Your task to perform on an android device: Go to network settings Image 0: 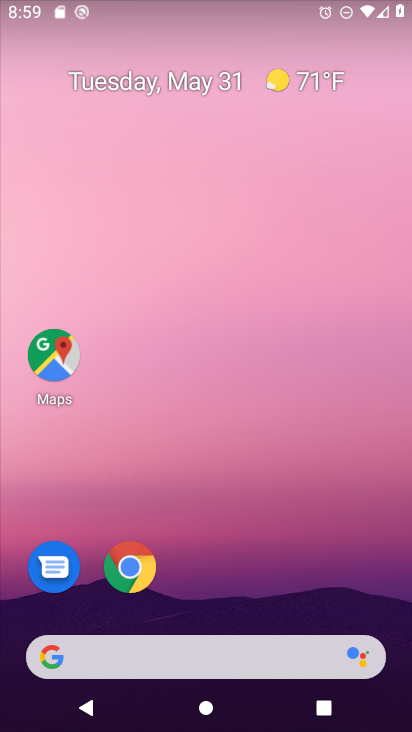
Step 0: drag from (244, 634) to (284, 302)
Your task to perform on an android device: Go to network settings Image 1: 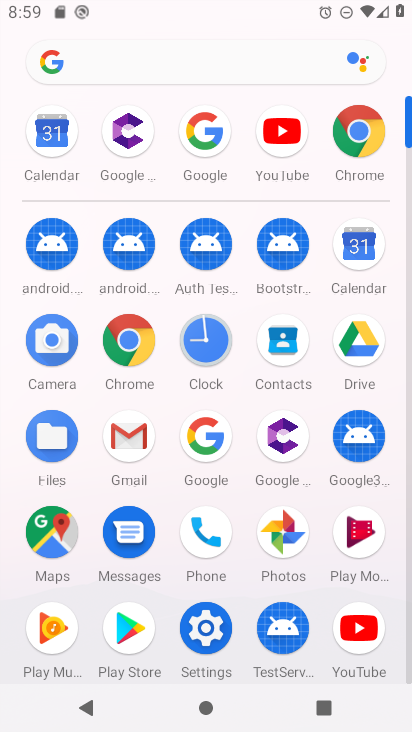
Step 1: click (203, 629)
Your task to perform on an android device: Go to network settings Image 2: 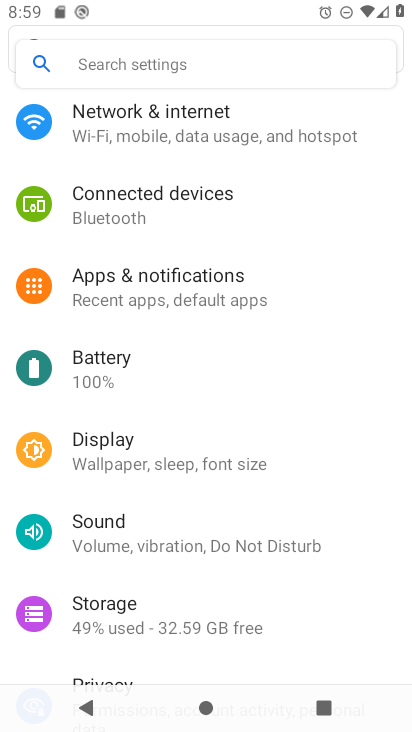
Step 2: drag from (242, 135) to (224, 561)
Your task to perform on an android device: Go to network settings Image 3: 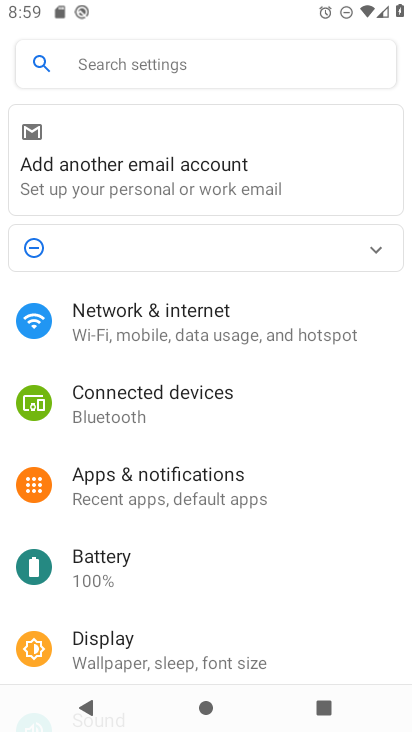
Step 3: click (161, 309)
Your task to perform on an android device: Go to network settings Image 4: 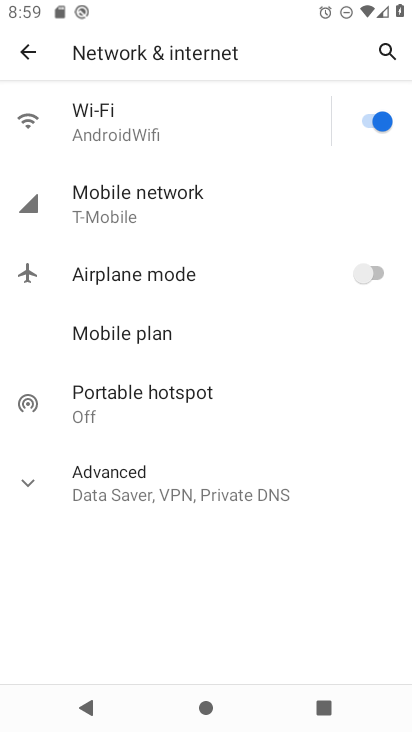
Step 4: click (143, 492)
Your task to perform on an android device: Go to network settings Image 5: 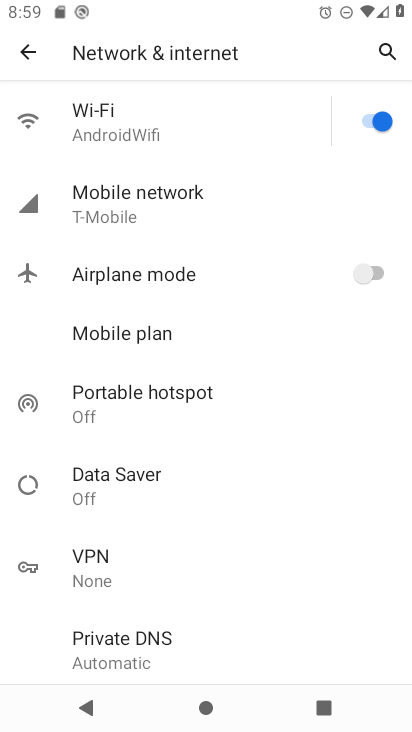
Step 5: task complete